Your task to perform on an android device: Show me productivity apps on the Play Store Image 0: 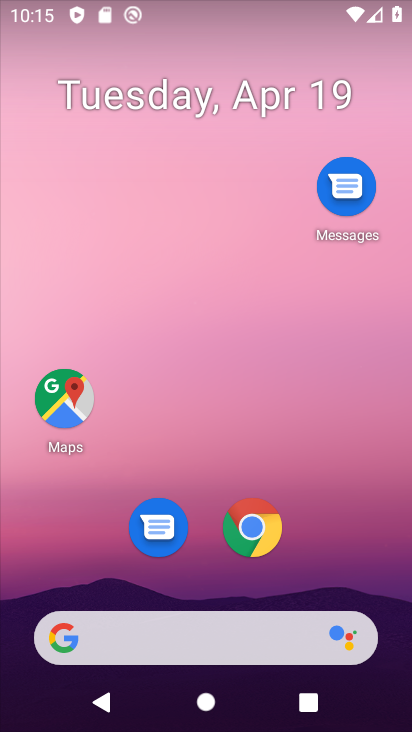
Step 0: drag from (310, 569) to (309, 162)
Your task to perform on an android device: Show me productivity apps on the Play Store Image 1: 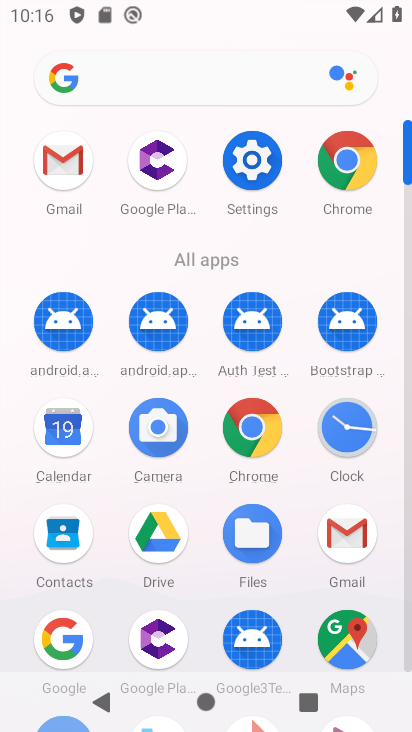
Step 1: drag from (297, 615) to (290, 303)
Your task to perform on an android device: Show me productivity apps on the Play Store Image 2: 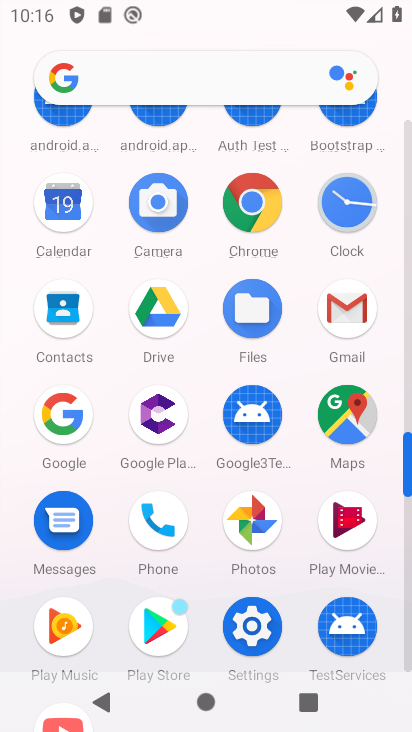
Step 2: click (165, 624)
Your task to perform on an android device: Show me productivity apps on the Play Store Image 3: 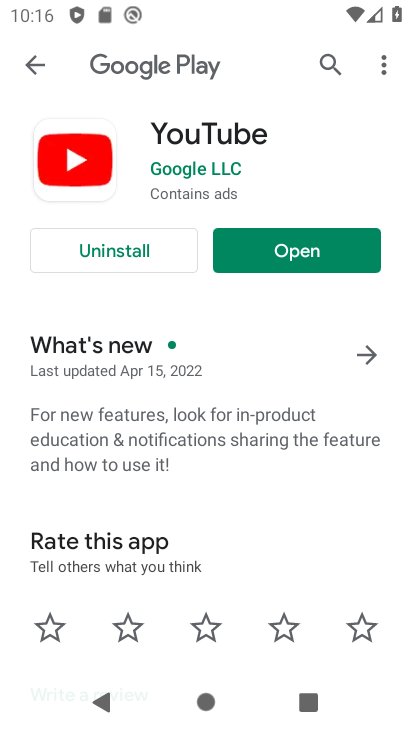
Step 3: press back button
Your task to perform on an android device: Show me productivity apps on the Play Store Image 4: 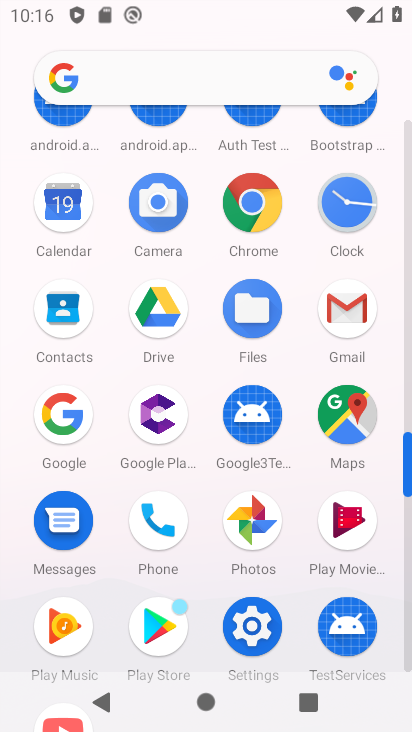
Step 4: click (160, 639)
Your task to perform on an android device: Show me productivity apps on the Play Store Image 5: 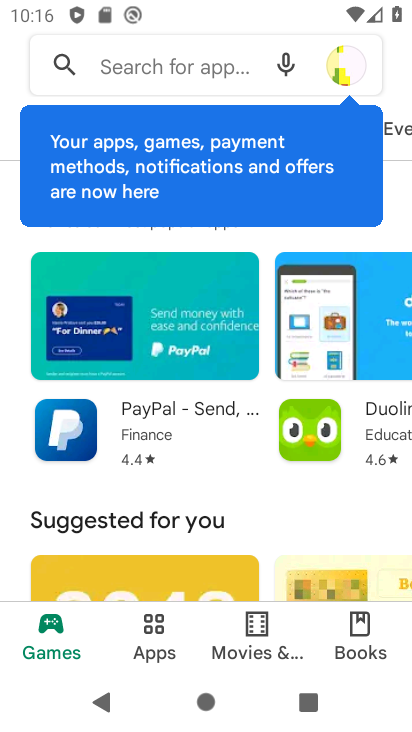
Step 5: click (158, 642)
Your task to perform on an android device: Show me productivity apps on the Play Store Image 6: 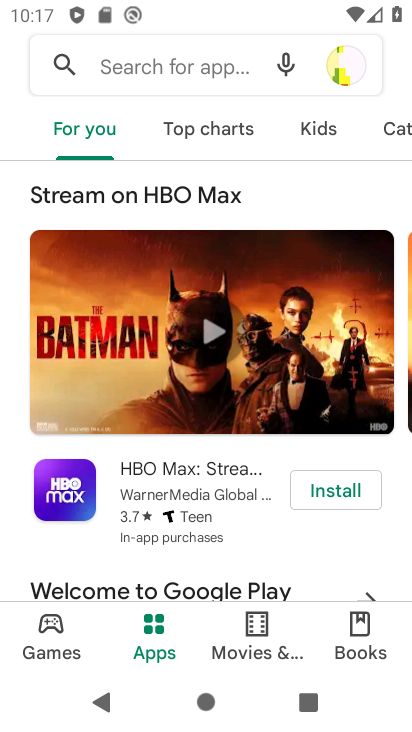
Step 6: click (393, 132)
Your task to perform on an android device: Show me productivity apps on the Play Store Image 7: 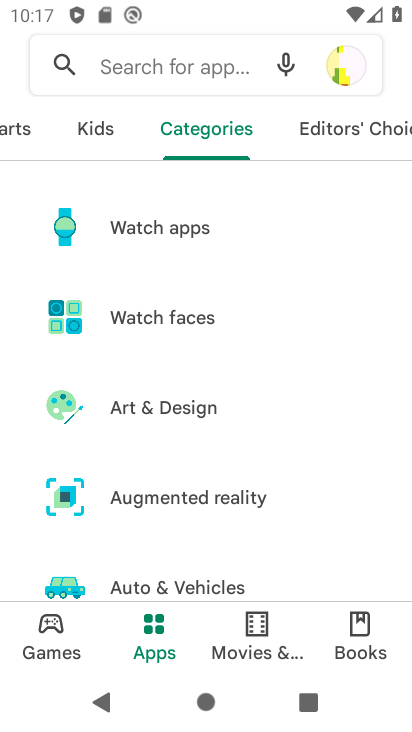
Step 7: drag from (284, 492) to (263, 196)
Your task to perform on an android device: Show me productivity apps on the Play Store Image 8: 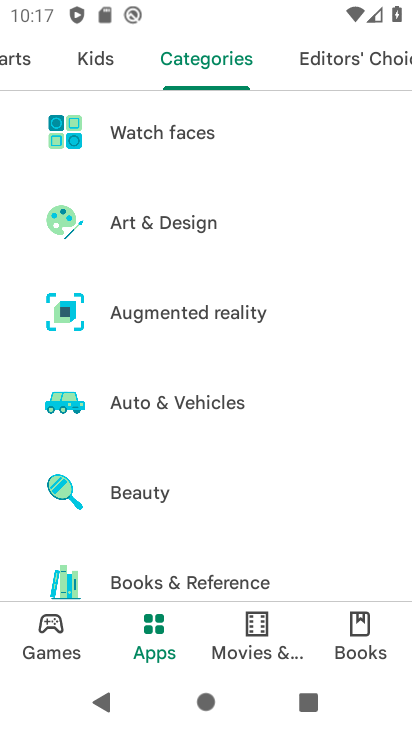
Step 8: drag from (267, 551) to (268, 205)
Your task to perform on an android device: Show me productivity apps on the Play Store Image 9: 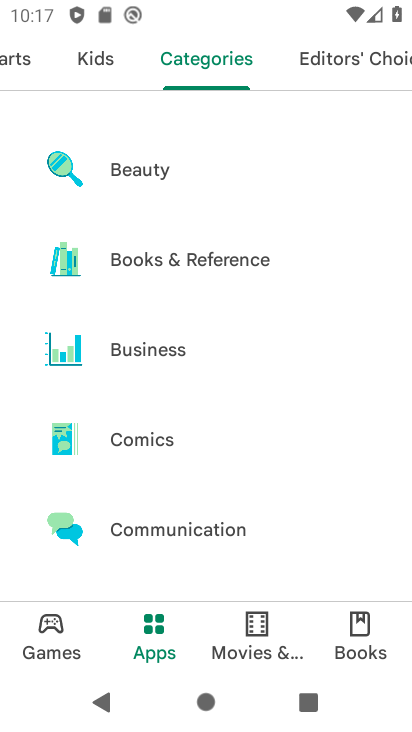
Step 9: drag from (307, 501) to (311, 230)
Your task to perform on an android device: Show me productivity apps on the Play Store Image 10: 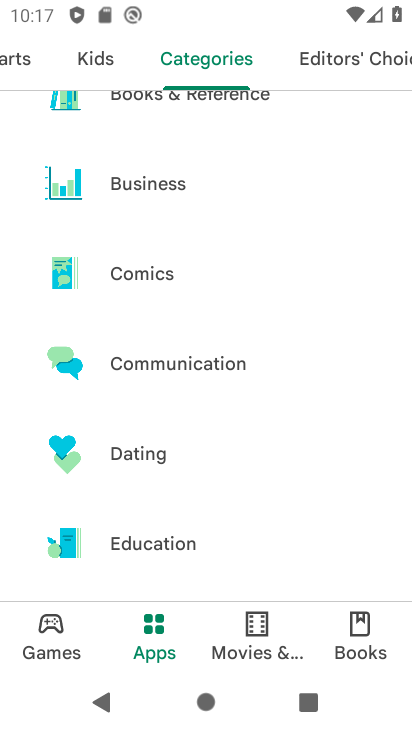
Step 10: drag from (292, 540) to (301, 158)
Your task to perform on an android device: Show me productivity apps on the Play Store Image 11: 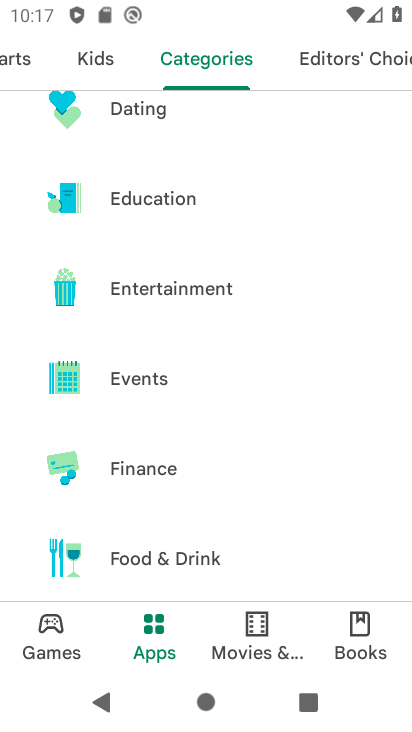
Step 11: drag from (271, 530) to (235, 186)
Your task to perform on an android device: Show me productivity apps on the Play Store Image 12: 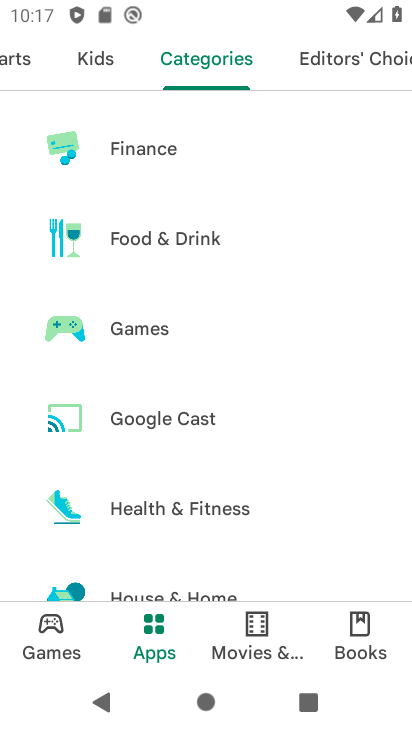
Step 12: drag from (253, 563) to (254, 168)
Your task to perform on an android device: Show me productivity apps on the Play Store Image 13: 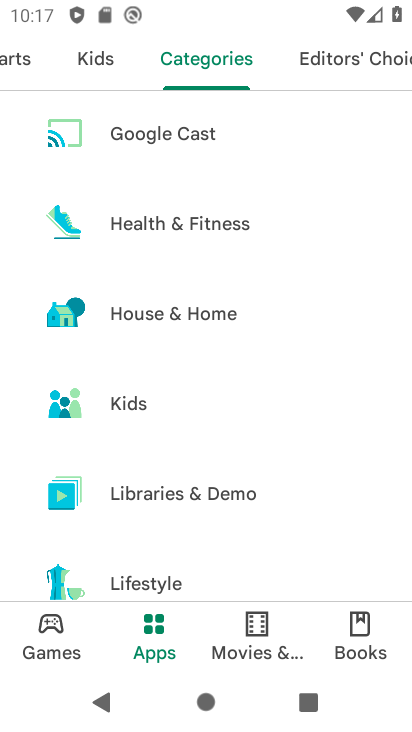
Step 13: drag from (251, 546) to (253, 162)
Your task to perform on an android device: Show me productivity apps on the Play Store Image 14: 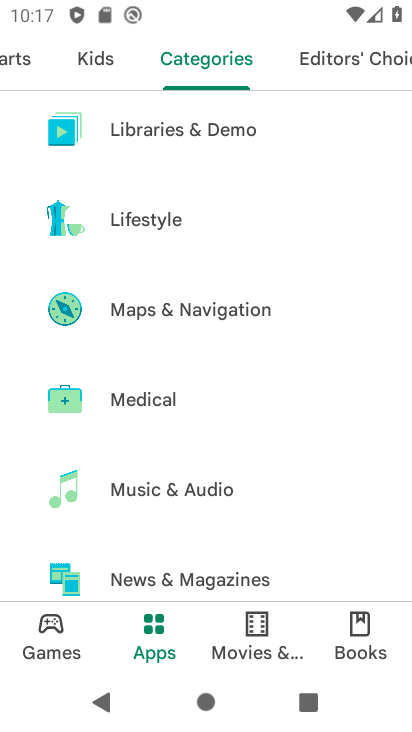
Step 14: drag from (268, 533) to (276, 173)
Your task to perform on an android device: Show me productivity apps on the Play Store Image 15: 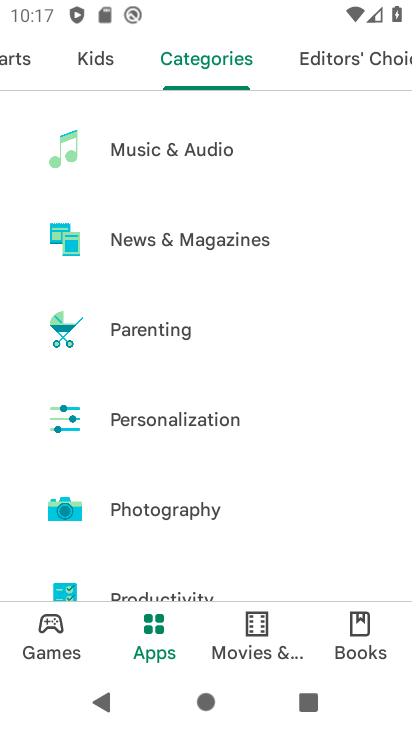
Step 15: drag from (275, 566) to (273, 381)
Your task to perform on an android device: Show me productivity apps on the Play Store Image 16: 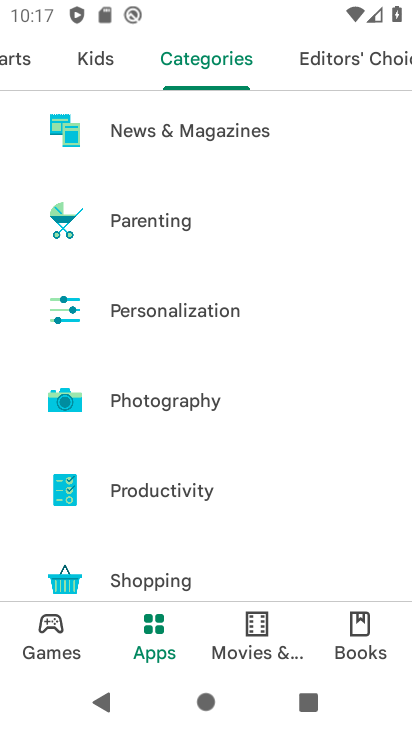
Step 16: click (208, 506)
Your task to perform on an android device: Show me productivity apps on the Play Store Image 17: 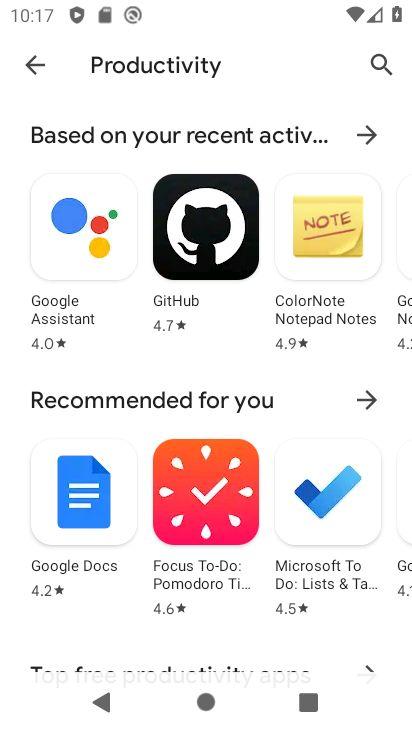
Step 17: task complete